Your task to perform on an android device: Is it going to rain today? Image 0: 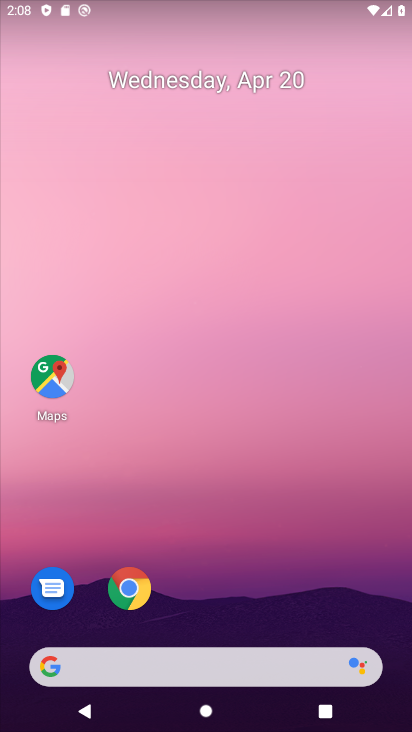
Step 0: click (152, 658)
Your task to perform on an android device: Is it going to rain today? Image 1: 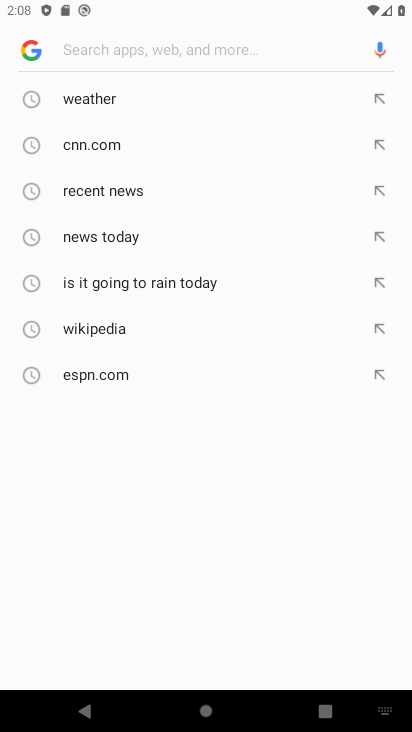
Step 1: click (83, 92)
Your task to perform on an android device: Is it going to rain today? Image 2: 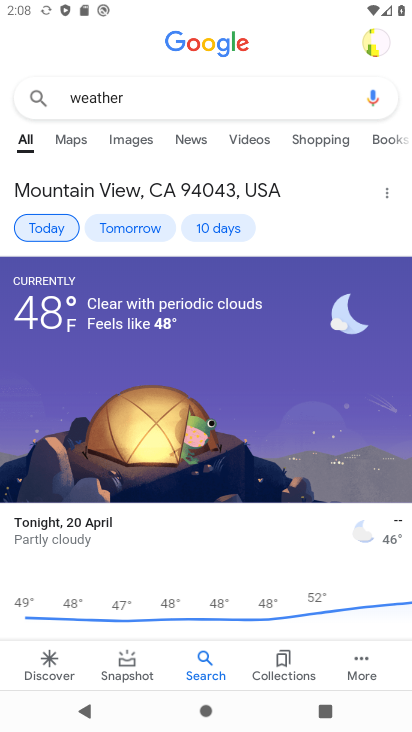
Step 2: task complete